Your task to perform on an android device: turn vacation reply on in the gmail app Image 0: 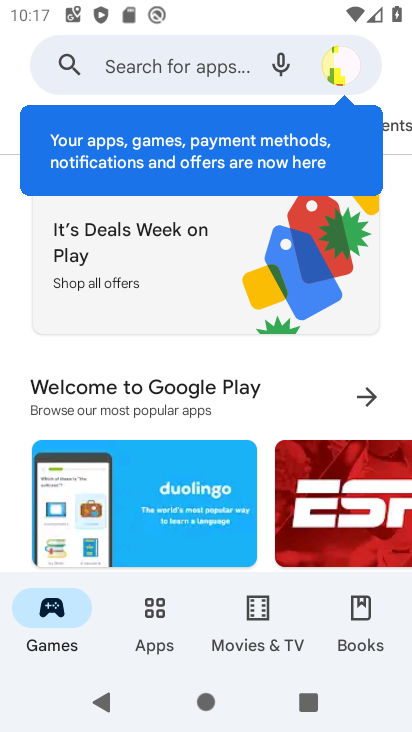
Step 0: press back button
Your task to perform on an android device: turn vacation reply on in the gmail app Image 1: 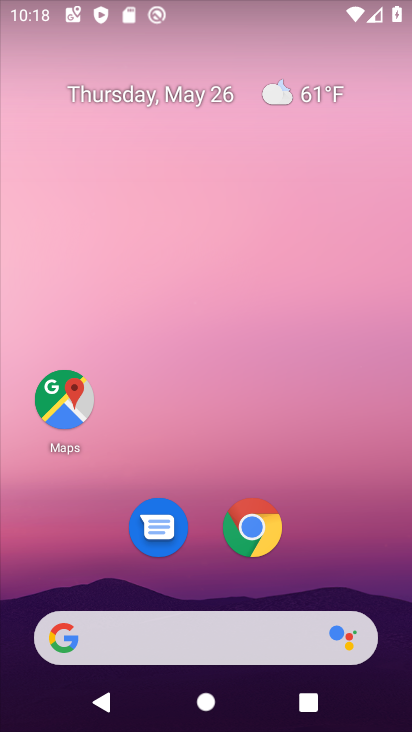
Step 1: drag from (243, 593) to (243, 98)
Your task to perform on an android device: turn vacation reply on in the gmail app Image 2: 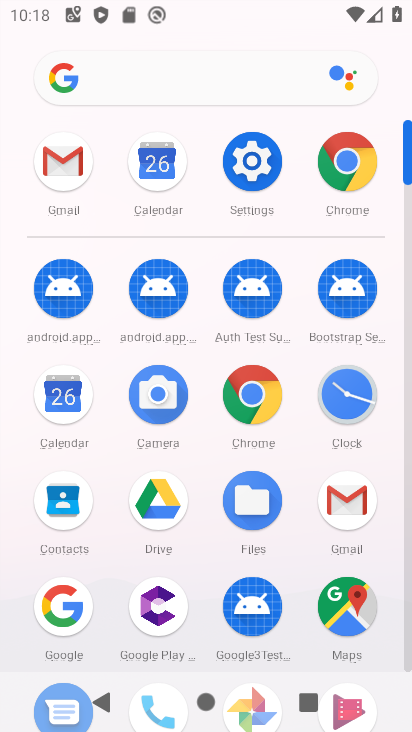
Step 2: click (72, 148)
Your task to perform on an android device: turn vacation reply on in the gmail app Image 3: 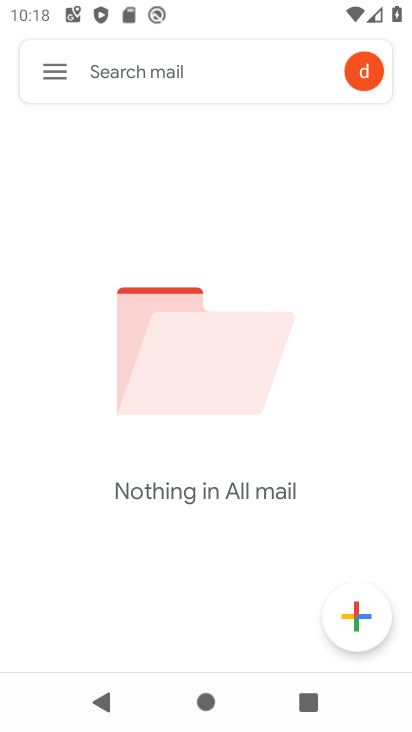
Step 3: click (50, 67)
Your task to perform on an android device: turn vacation reply on in the gmail app Image 4: 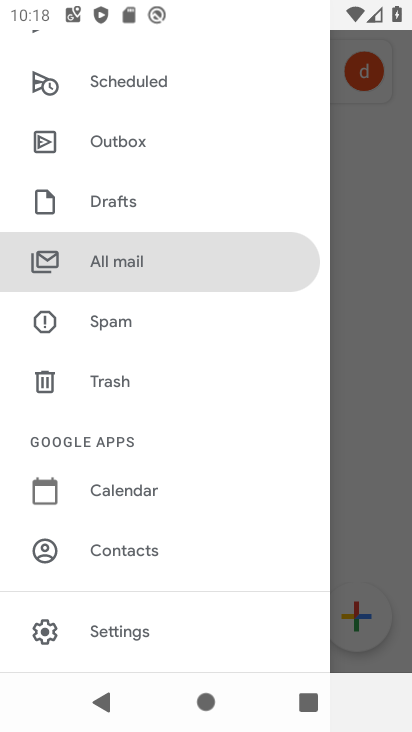
Step 4: click (142, 622)
Your task to perform on an android device: turn vacation reply on in the gmail app Image 5: 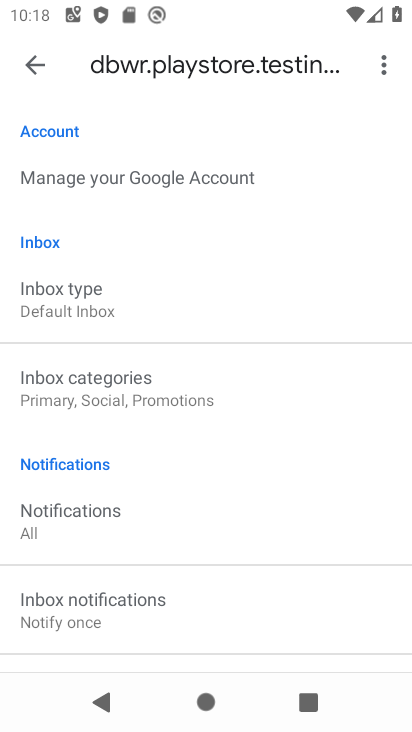
Step 5: drag from (207, 573) to (267, 75)
Your task to perform on an android device: turn vacation reply on in the gmail app Image 6: 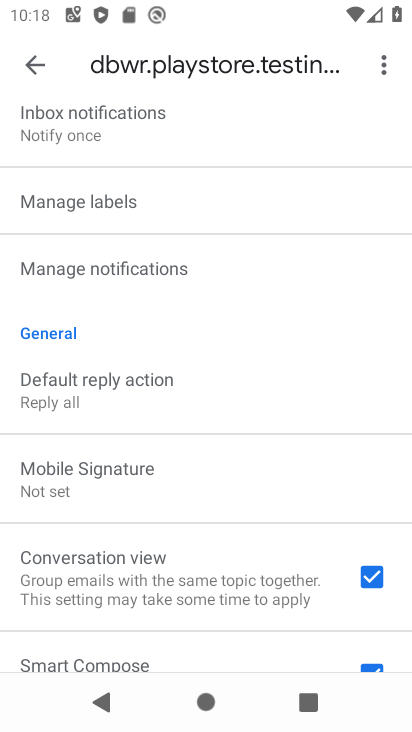
Step 6: drag from (147, 620) to (201, 221)
Your task to perform on an android device: turn vacation reply on in the gmail app Image 7: 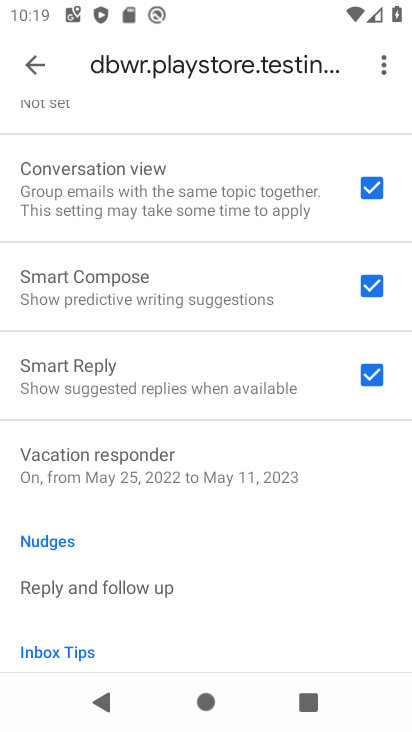
Step 7: click (149, 458)
Your task to perform on an android device: turn vacation reply on in the gmail app Image 8: 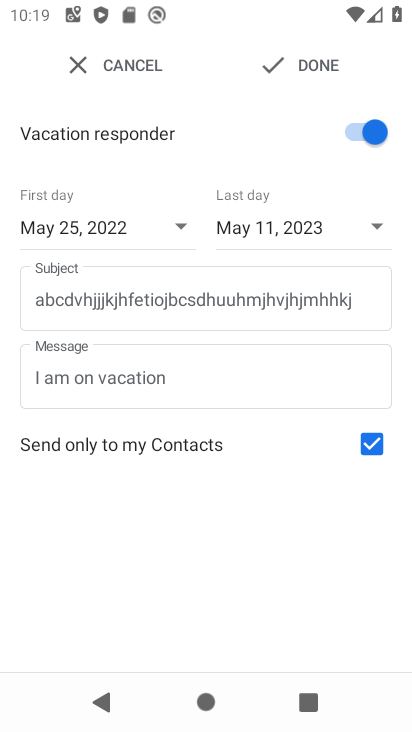
Step 8: task complete